Your task to perform on an android device: find which apps use the phone's location Image 0: 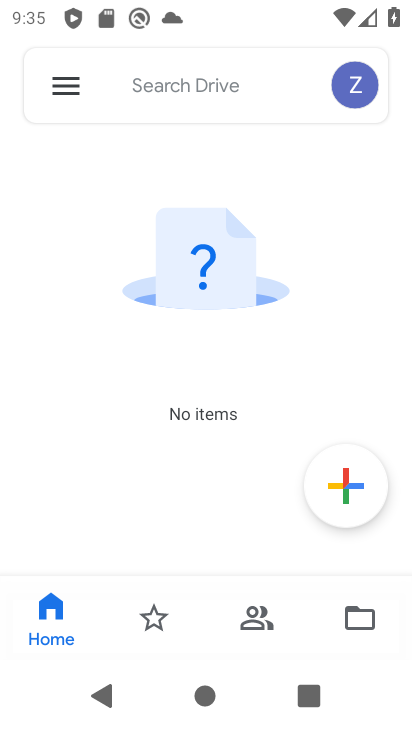
Step 0: press home button
Your task to perform on an android device: find which apps use the phone's location Image 1: 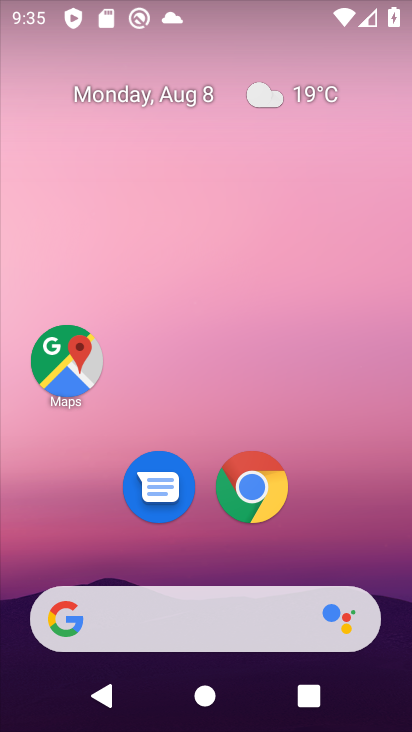
Step 1: drag from (206, 531) to (206, 83)
Your task to perform on an android device: find which apps use the phone's location Image 2: 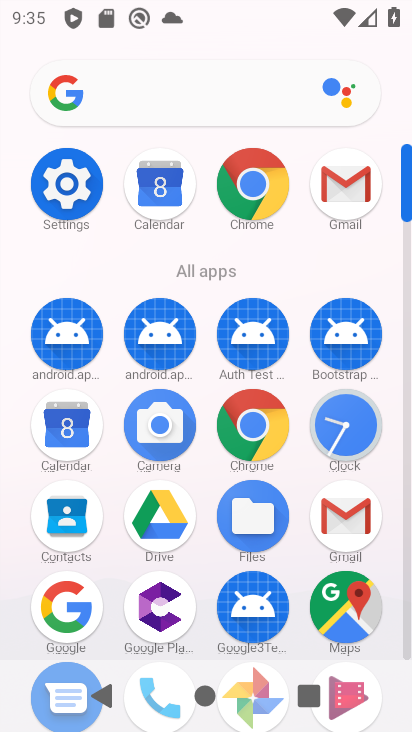
Step 2: click (68, 186)
Your task to perform on an android device: find which apps use the phone's location Image 3: 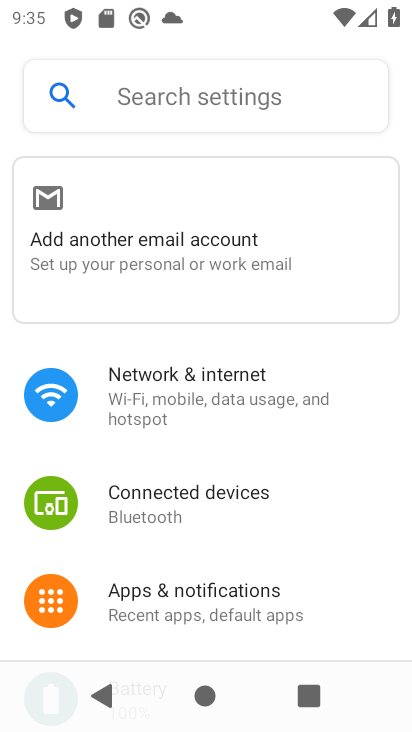
Step 3: drag from (176, 601) to (172, 330)
Your task to perform on an android device: find which apps use the phone's location Image 4: 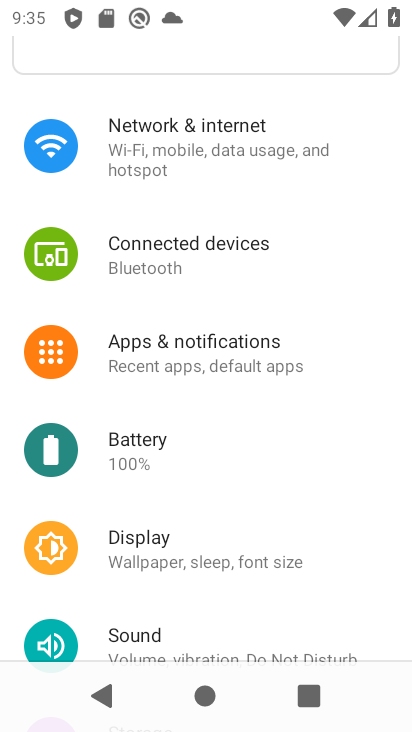
Step 4: drag from (159, 603) to (163, 302)
Your task to perform on an android device: find which apps use the phone's location Image 5: 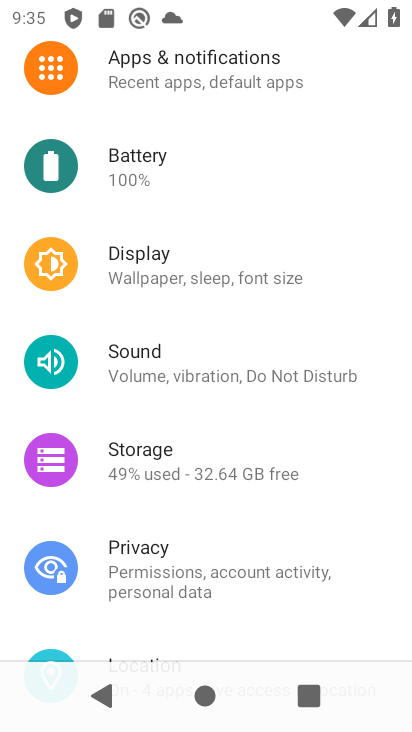
Step 5: drag from (177, 526) to (177, 326)
Your task to perform on an android device: find which apps use the phone's location Image 6: 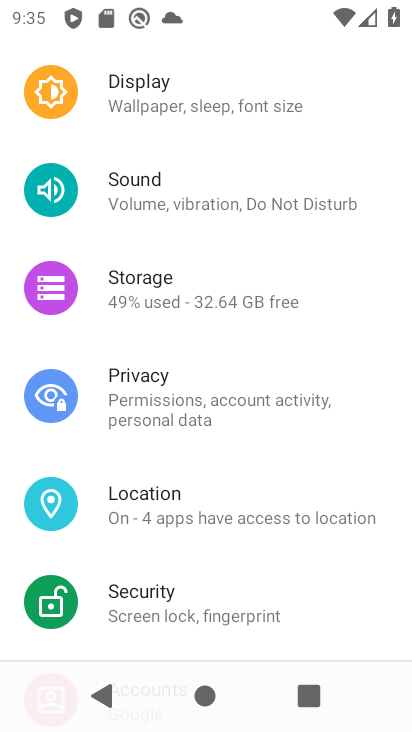
Step 6: click (157, 497)
Your task to perform on an android device: find which apps use the phone's location Image 7: 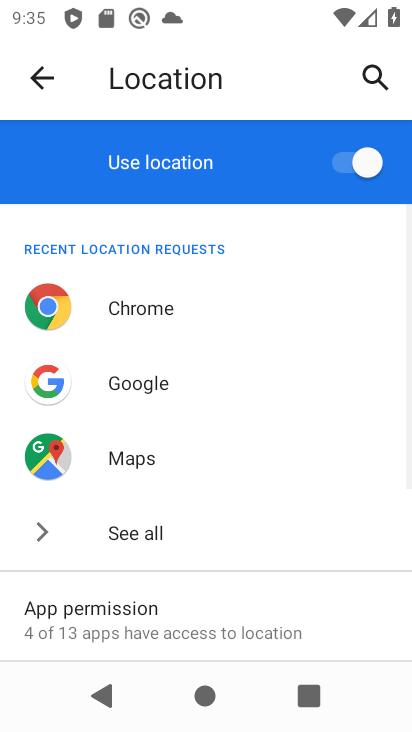
Step 7: drag from (165, 585) to (165, 427)
Your task to perform on an android device: find which apps use the phone's location Image 8: 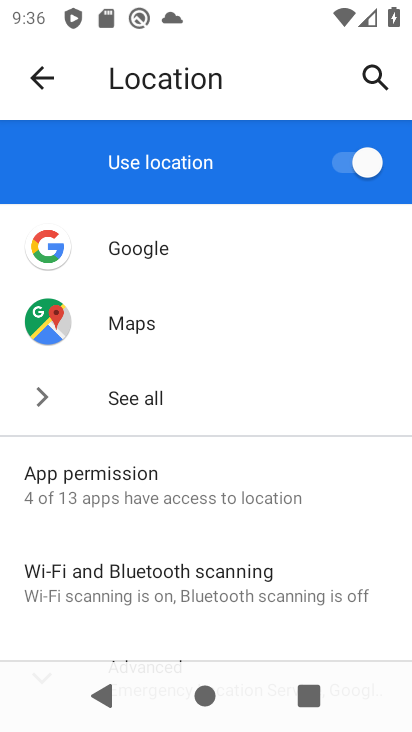
Step 8: drag from (189, 581) to (189, 373)
Your task to perform on an android device: find which apps use the phone's location Image 9: 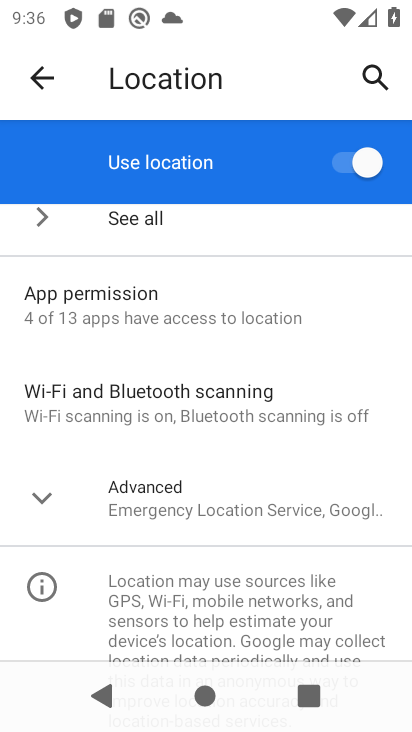
Step 9: click (115, 301)
Your task to perform on an android device: find which apps use the phone's location Image 10: 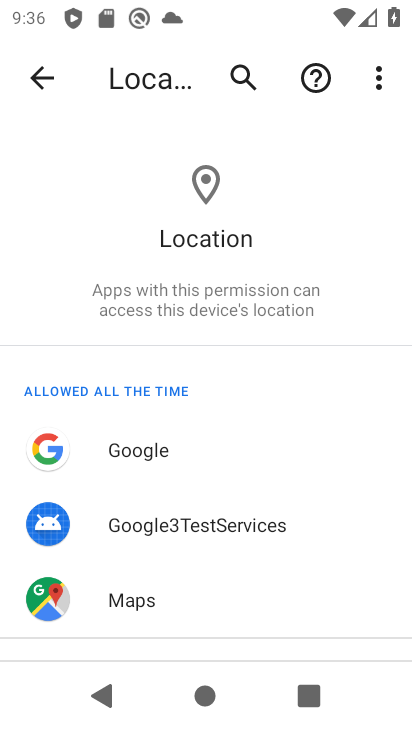
Step 10: task complete